Your task to perform on an android device: change keyboard looks Image 0: 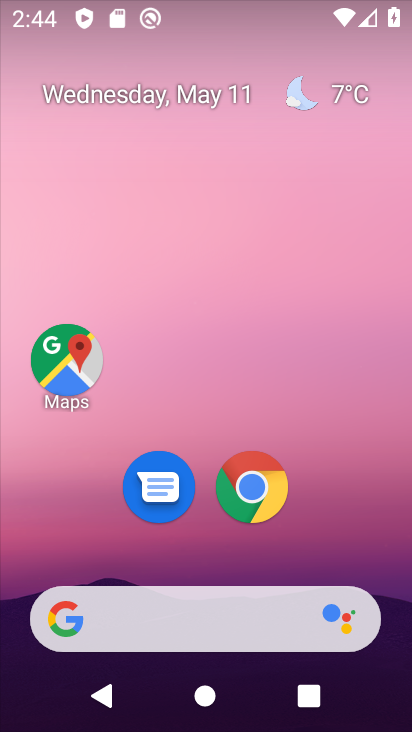
Step 0: drag from (323, 597) to (278, 59)
Your task to perform on an android device: change keyboard looks Image 1: 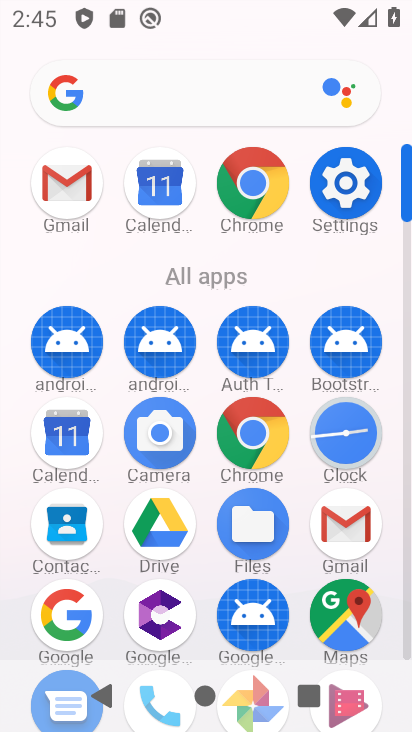
Step 1: click (348, 177)
Your task to perform on an android device: change keyboard looks Image 2: 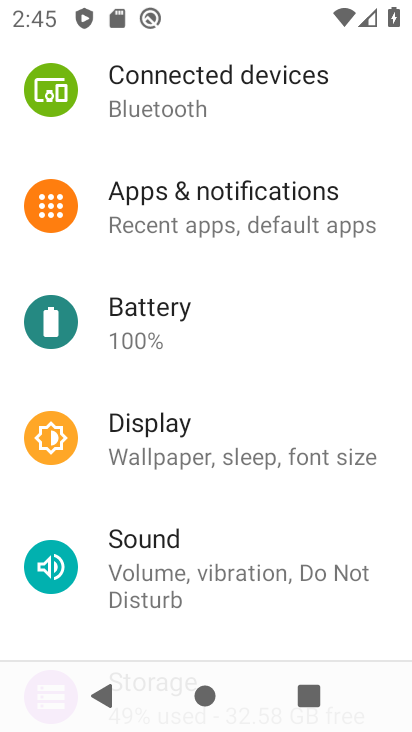
Step 2: drag from (221, 647) to (263, 125)
Your task to perform on an android device: change keyboard looks Image 3: 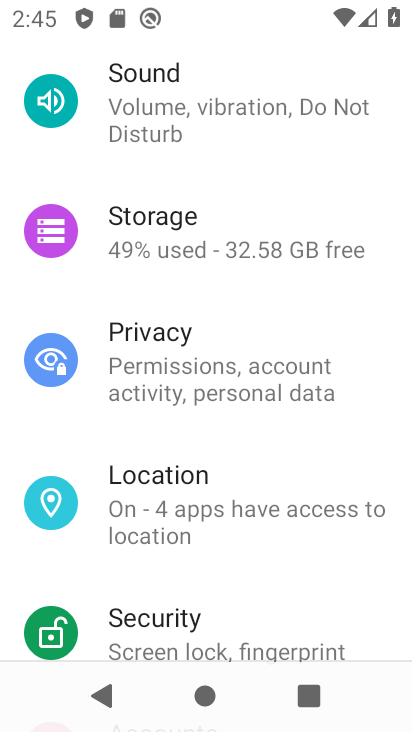
Step 3: drag from (298, 625) to (247, 115)
Your task to perform on an android device: change keyboard looks Image 4: 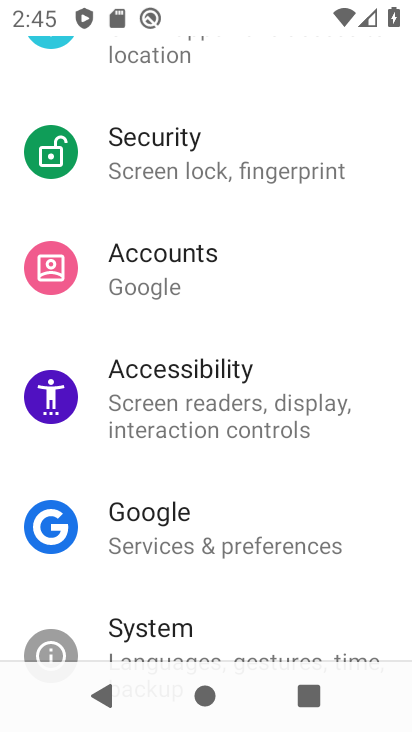
Step 4: drag from (217, 110) to (255, 604)
Your task to perform on an android device: change keyboard looks Image 5: 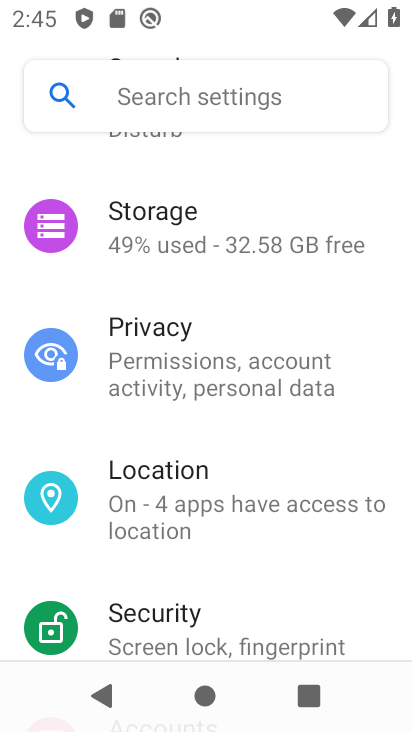
Step 5: drag from (230, 246) to (291, 32)
Your task to perform on an android device: change keyboard looks Image 6: 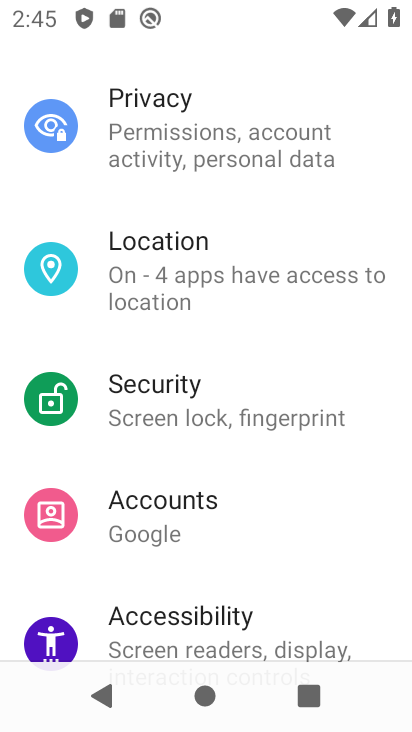
Step 6: drag from (258, 630) to (291, 201)
Your task to perform on an android device: change keyboard looks Image 7: 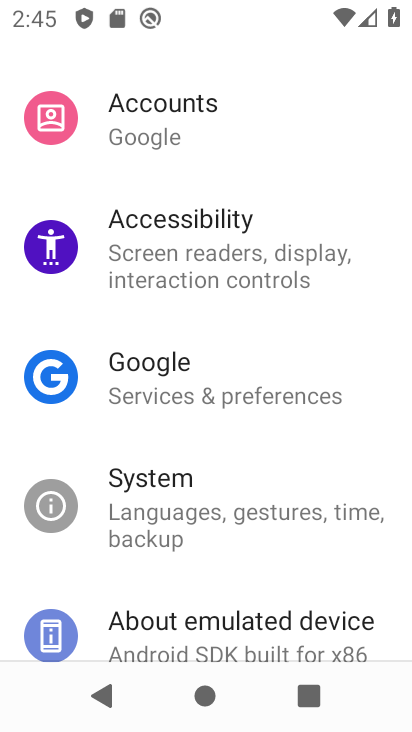
Step 7: click (225, 507)
Your task to perform on an android device: change keyboard looks Image 8: 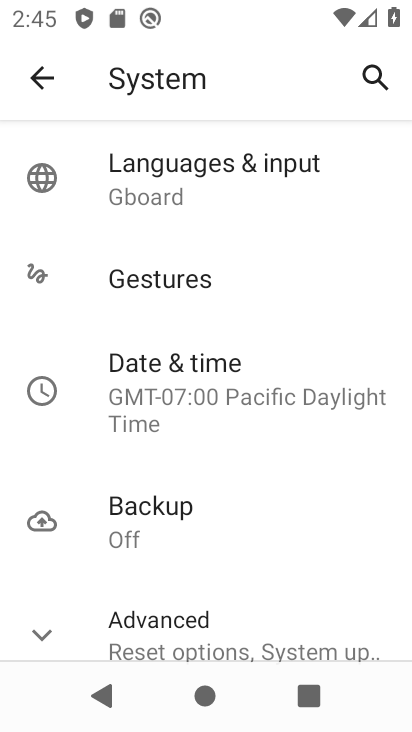
Step 8: click (164, 178)
Your task to perform on an android device: change keyboard looks Image 9: 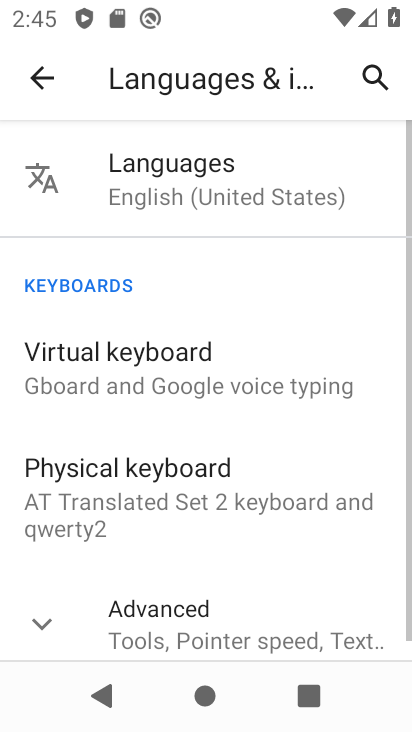
Step 9: click (196, 367)
Your task to perform on an android device: change keyboard looks Image 10: 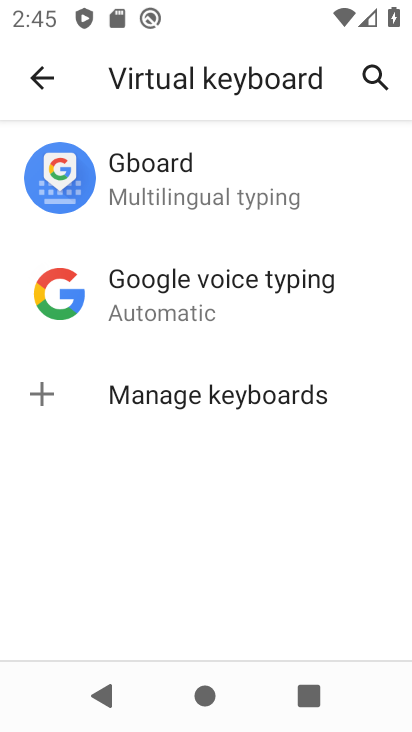
Step 10: click (198, 188)
Your task to perform on an android device: change keyboard looks Image 11: 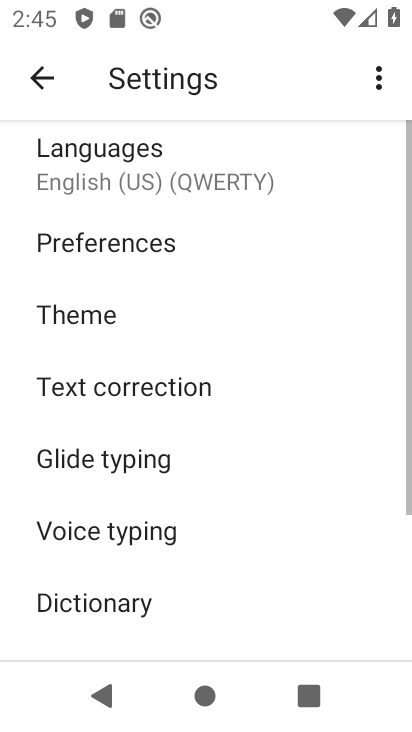
Step 11: click (149, 305)
Your task to perform on an android device: change keyboard looks Image 12: 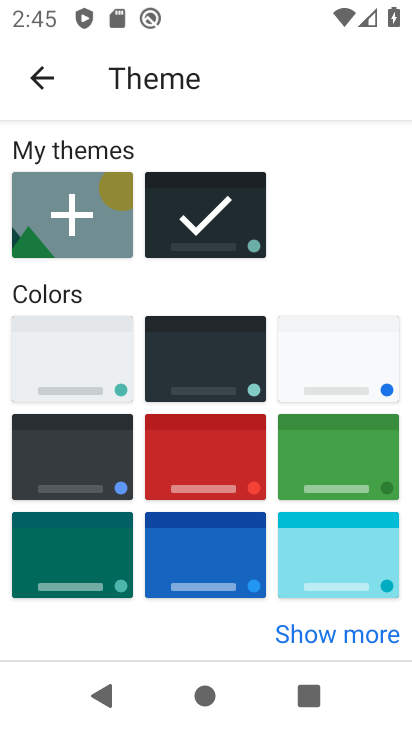
Step 12: click (331, 464)
Your task to perform on an android device: change keyboard looks Image 13: 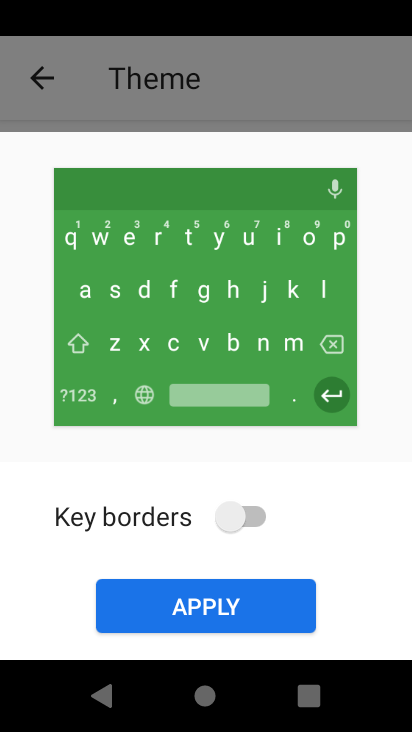
Step 13: click (288, 600)
Your task to perform on an android device: change keyboard looks Image 14: 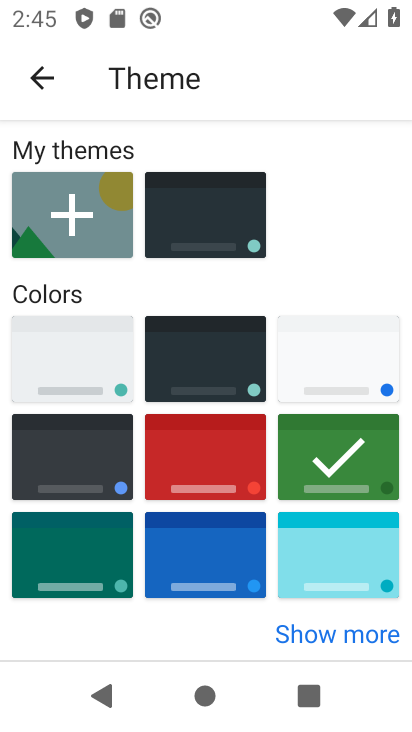
Step 14: task complete